Your task to perform on an android device: change the clock display to analog Image 0: 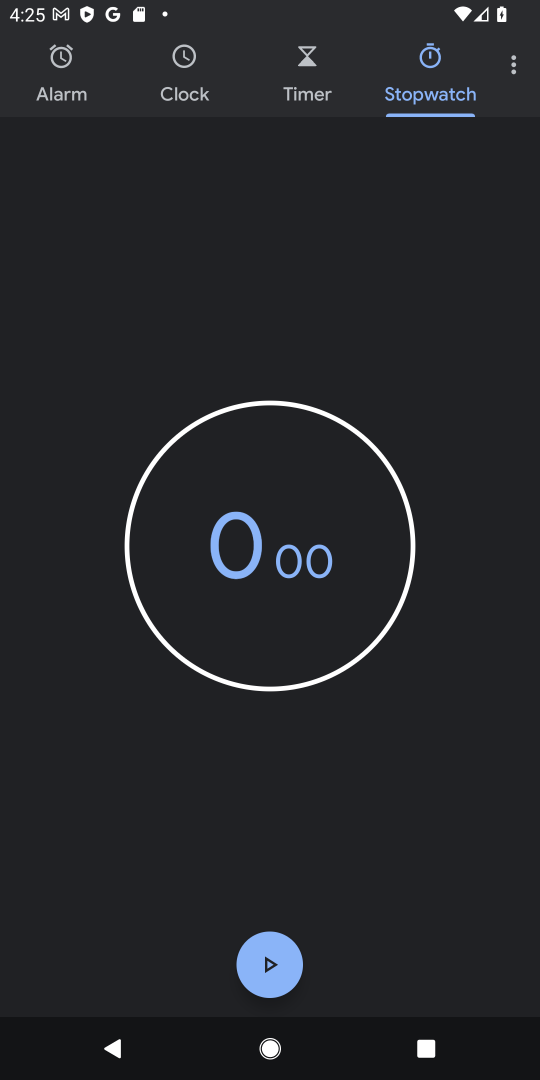
Step 0: click (509, 74)
Your task to perform on an android device: change the clock display to analog Image 1: 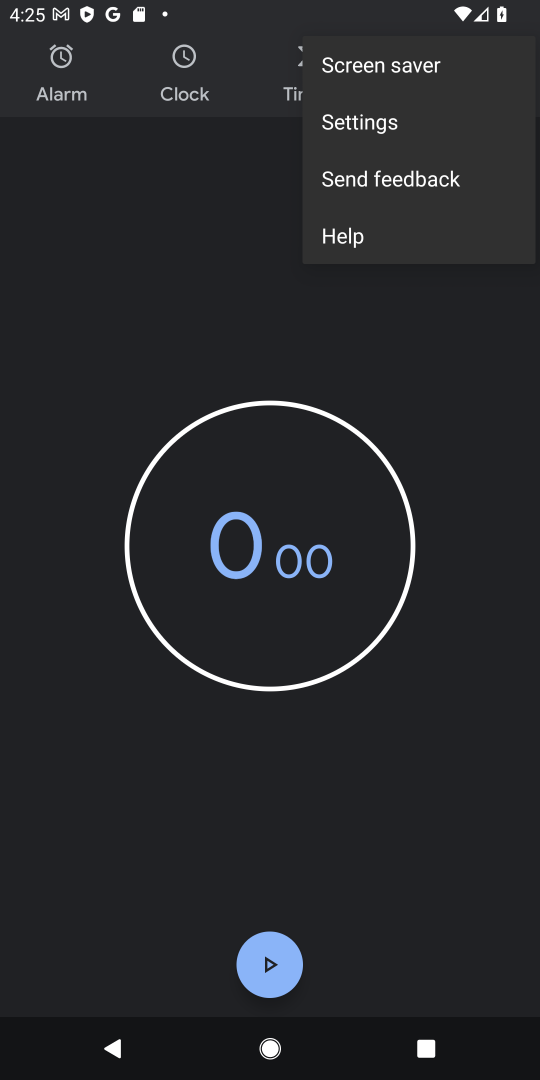
Step 1: click (335, 118)
Your task to perform on an android device: change the clock display to analog Image 2: 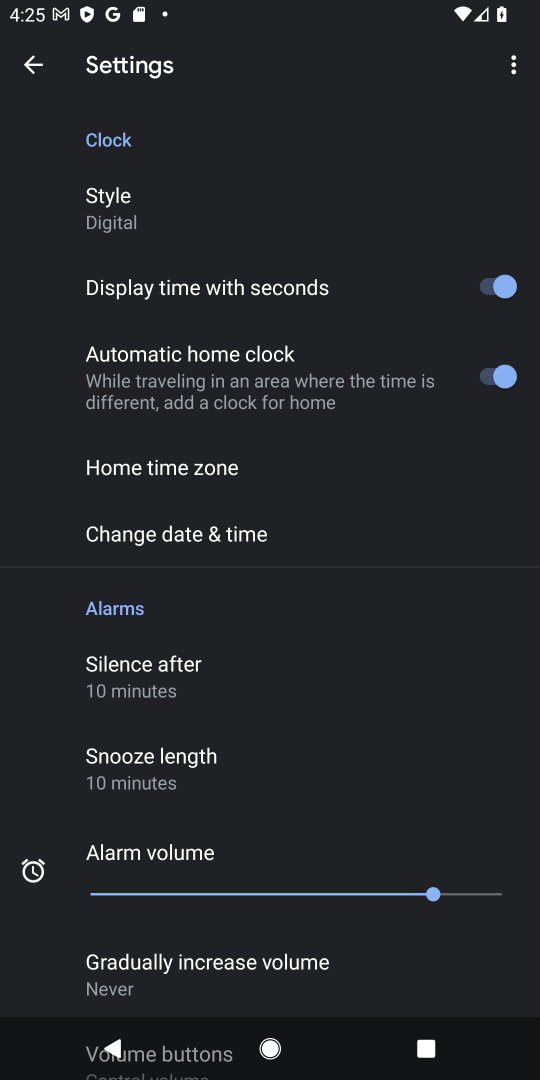
Step 2: click (107, 223)
Your task to perform on an android device: change the clock display to analog Image 3: 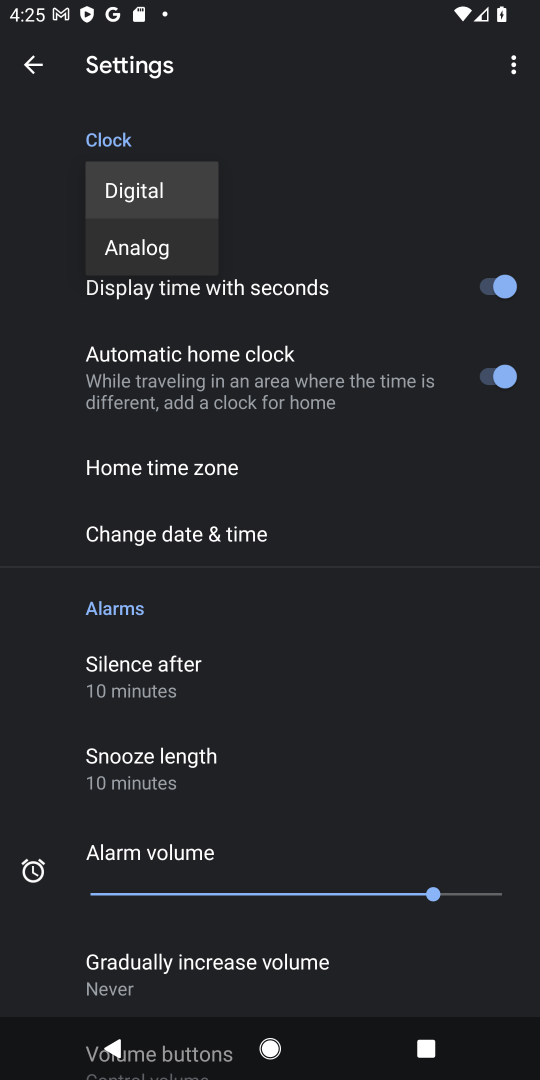
Step 3: click (142, 253)
Your task to perform on an android device: change the clock display to analog Image 4: 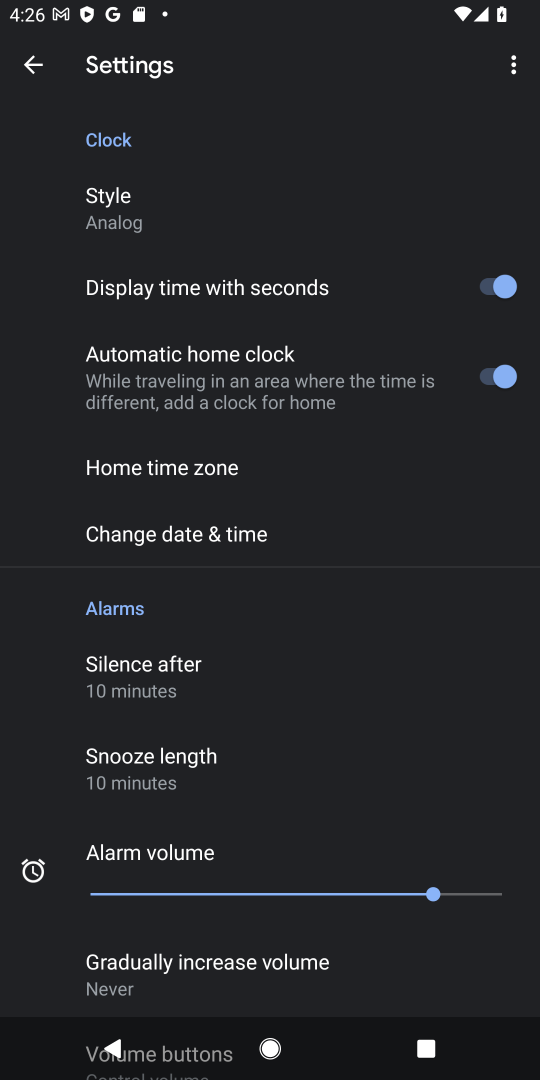
Step 4: task complete